Your task to perform on an android device: add a contact in the contacts app Image 0: 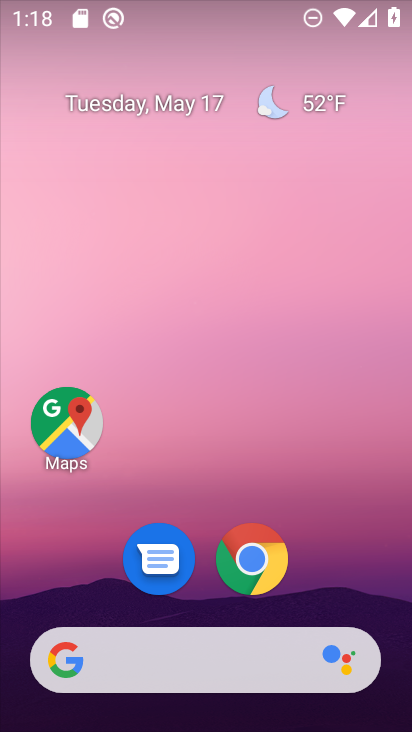
Step 0: drag from (314, 575) to (402, 199)
Your task to perform on an android device: add a contact in the contacts app Image 1: 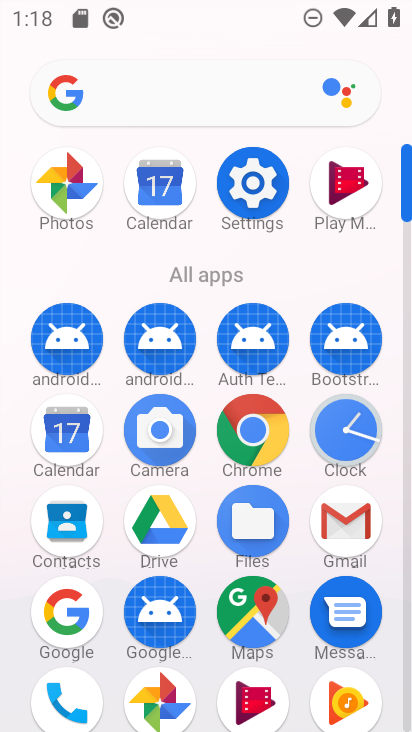
Step 1: click (63, 520)
Your task to perform on an android device: add a contact in the contacts app Image 2: 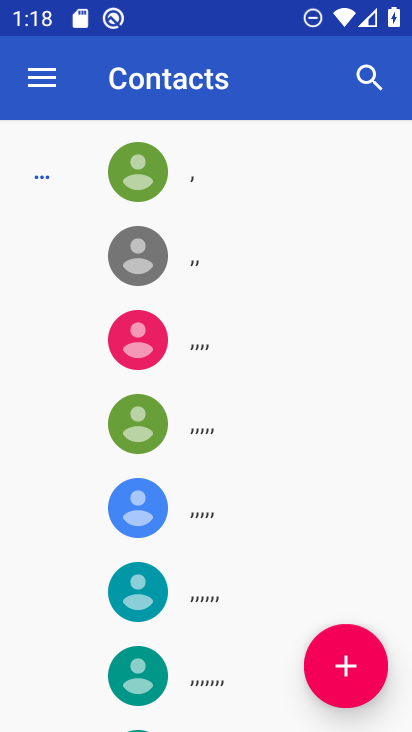
Step 2: click (346, 665)
Your task to perform on an android device: add a contact in the contacts app Image 3: 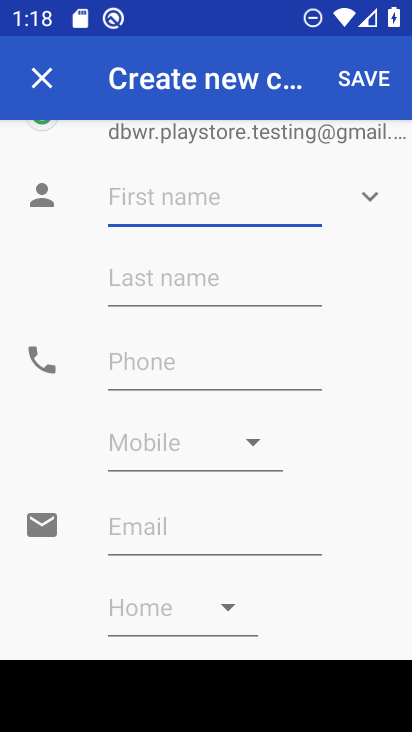
Step 3: click (163, 211)
Your task to perform on an android device: add a contact in the contacts app Image 4: 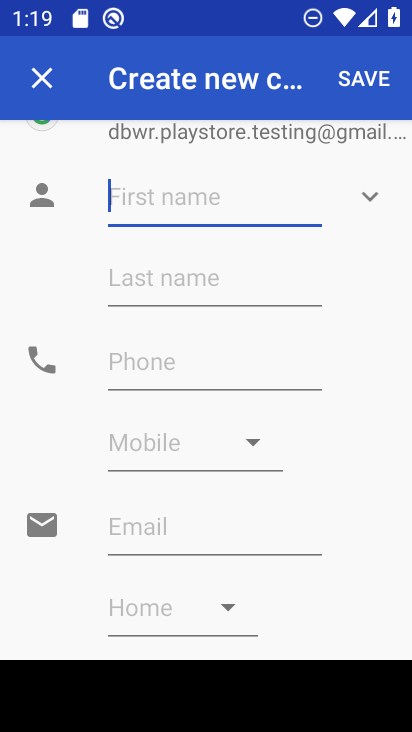
Step 4: type "Wriddhiman"
Your task to perform on an android device: add a contact in the contacts app Image 5: 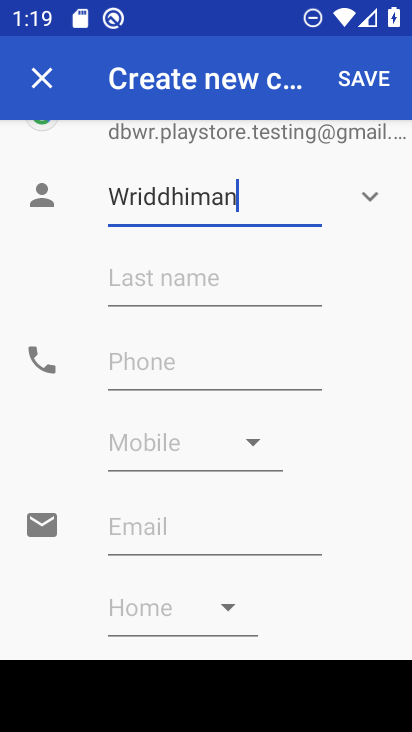
Step 5: click (234, 255)
Your task to perform on an android device: add a contact in the contacts app Image 6: 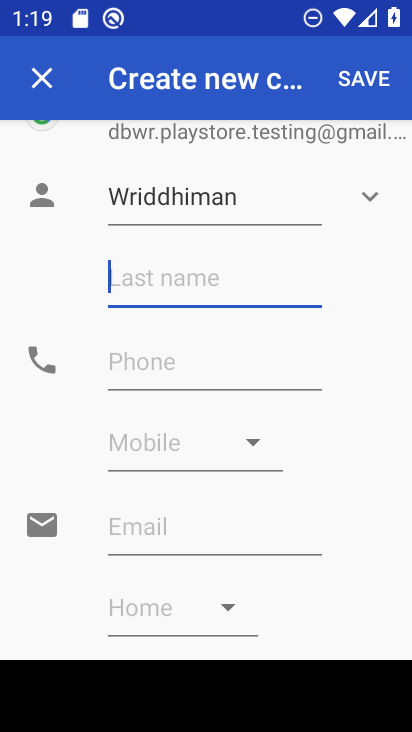
Step 6: type "Saha"
Your task to perform on an android device: add a contact in the contacts app Image 7: 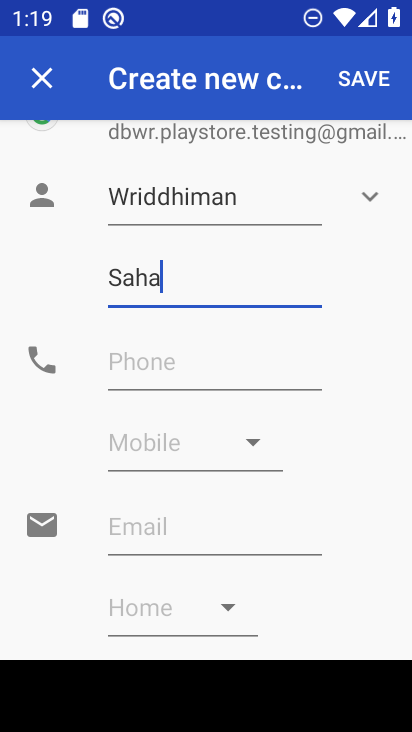
Step 7: click (182, 370)
Your task to perform on an android device: add a contact in the contacts app Image 8: 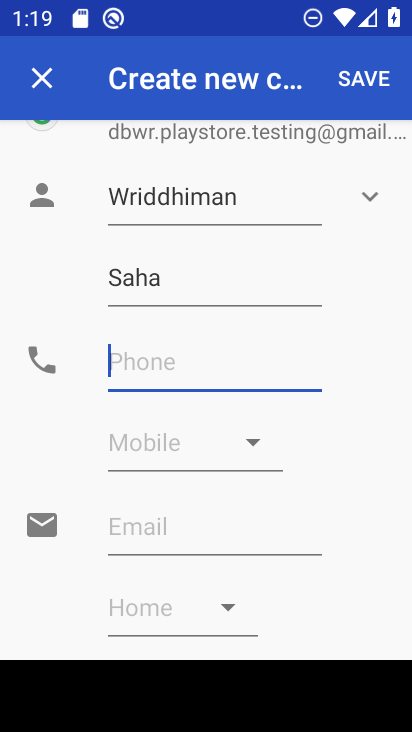
Step 8: type "09898765431265"
Your task to perform on an android device: add a contact in the contacts app Image 9: 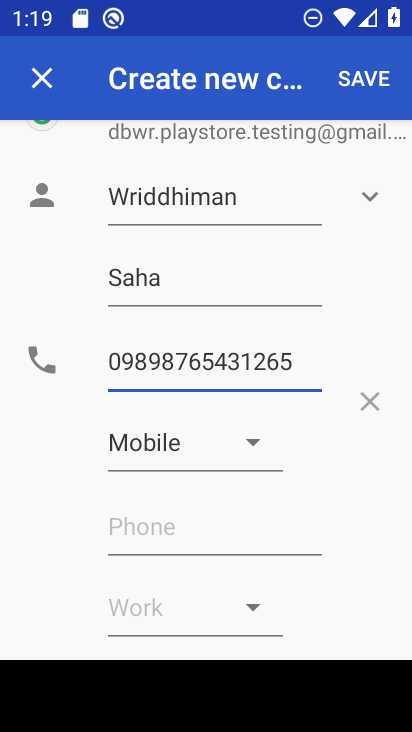
Step 9: click (364, 78)
Your task to perform on an android device: add a contact in the contacts app Image 10: 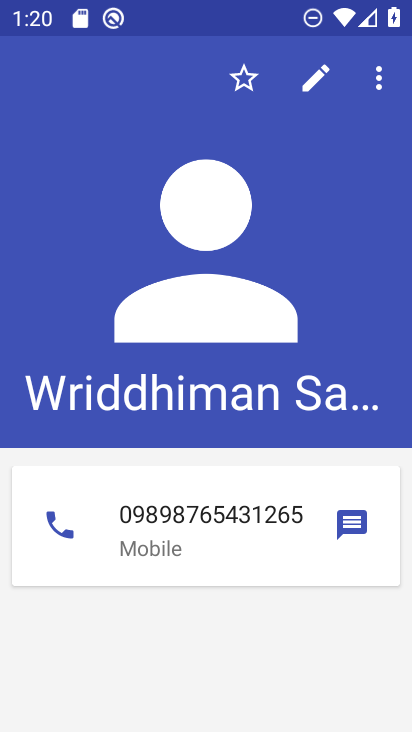
Step 10: task complete